Your task to perform on an android device: Open my contact list Image 0: 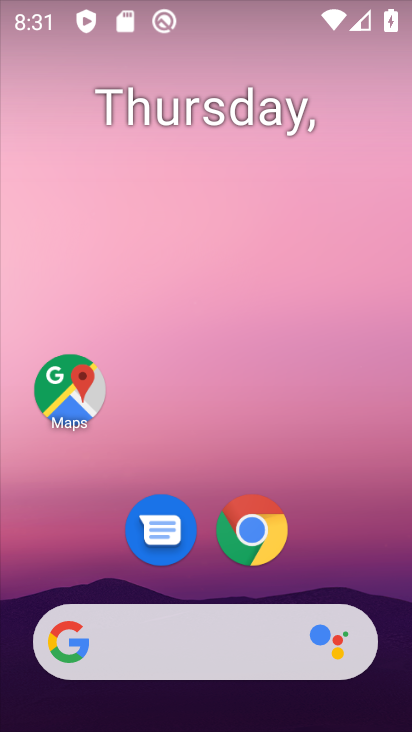
Step 0: drag from (239, 675) to (223, 250)
Your task to perform on an android device: Open my contact list Image 1: 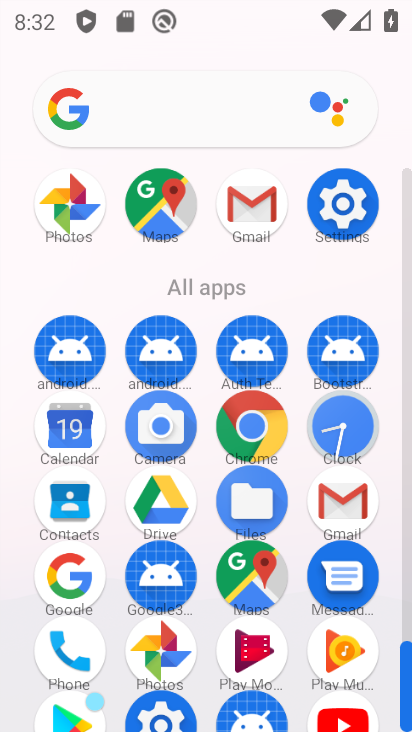
Step 1: click (86, 514)
Your task to perform on an android device: Open my contact list Image 2: 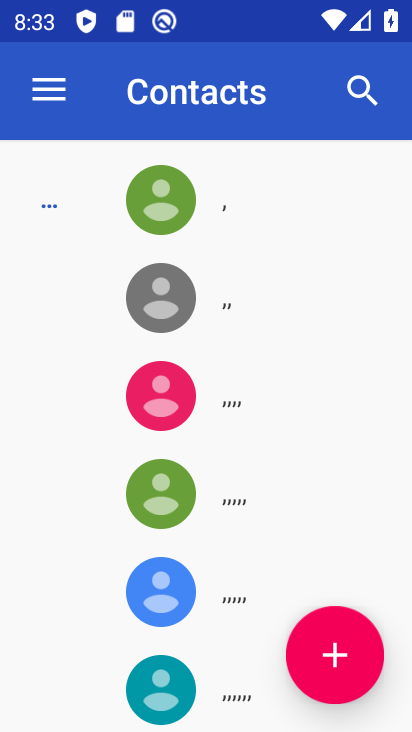
Step 2: task complete